Your task to perform on an android device: check battery use Image 0: 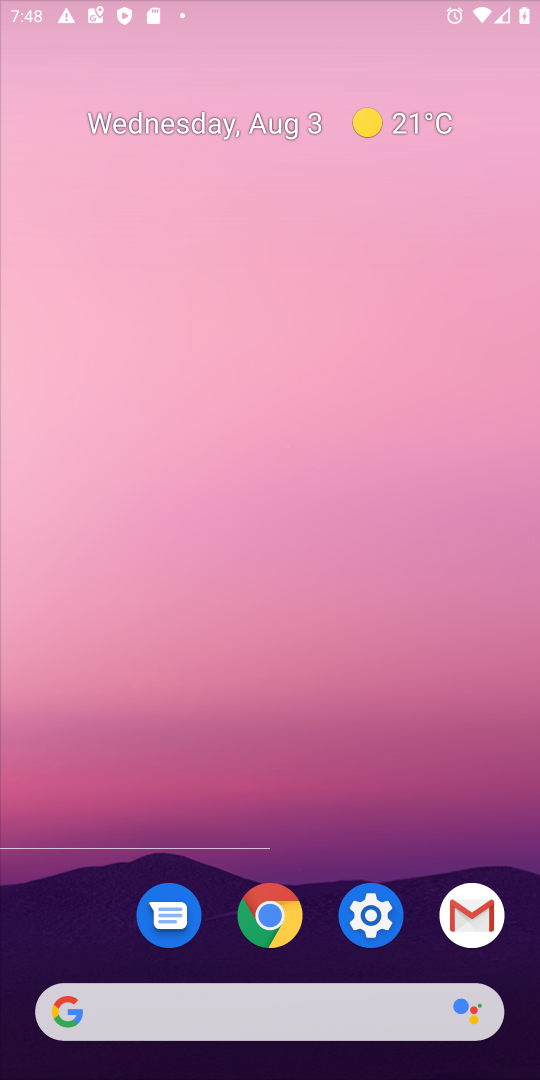
Step 0: press home button
Your task to perform on an android device: check battery use Image 1: 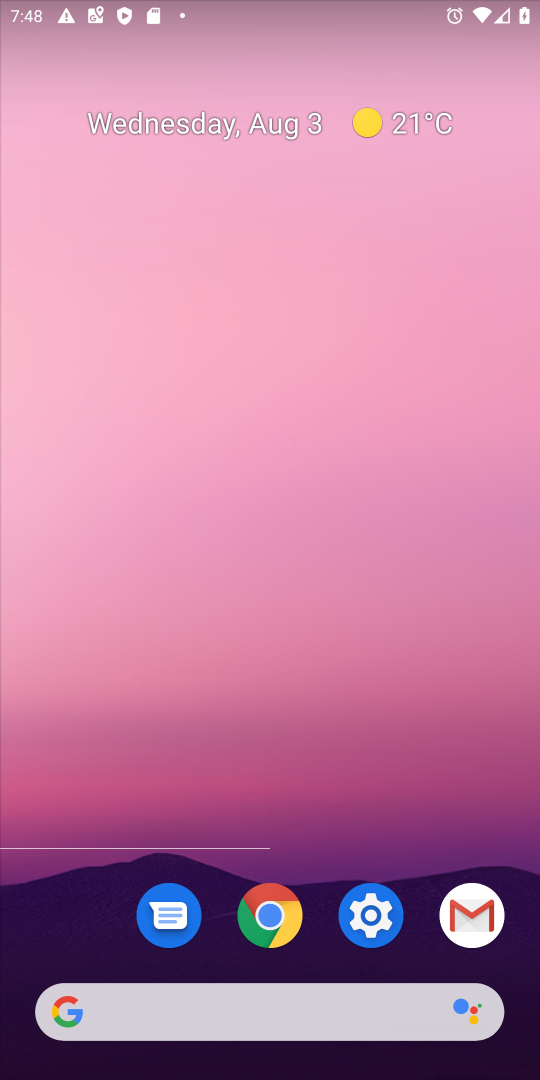
Step 1: click (379, 914)
Your task to perform on an android device: check battery use Image 2: 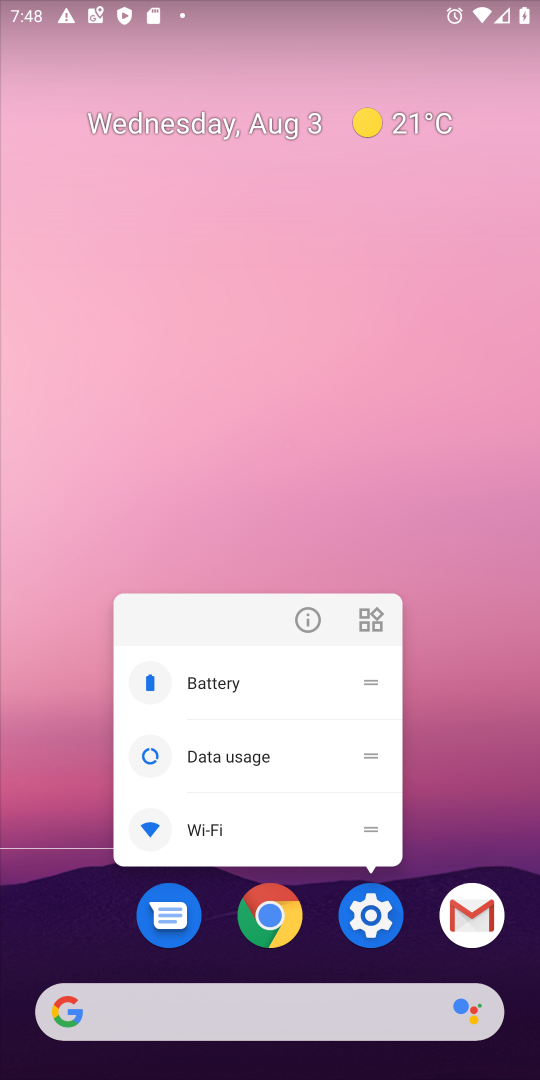
Step 2: click (367, 915)
Your task to perform on an android device: check battery use Image 3: 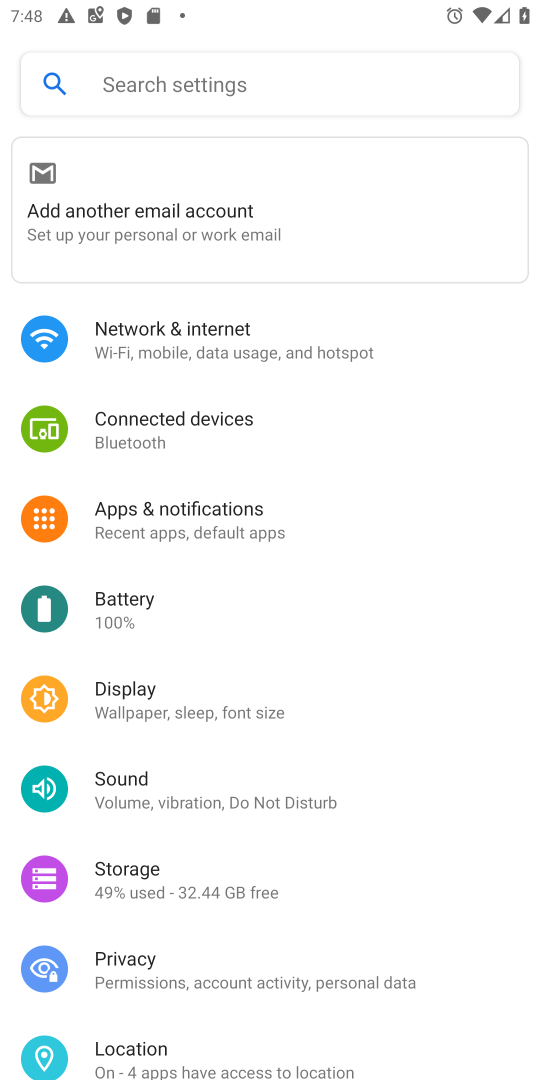
Step 3: click (184, 618)
Your task to perform on an android device: check battery use Image 4: 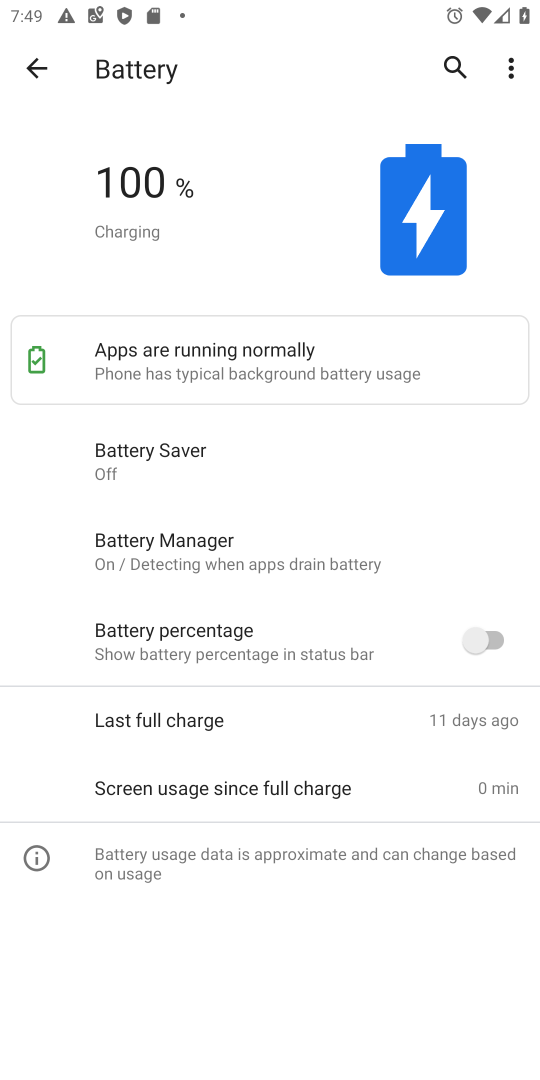
Step 4: task complete